Your task to perform on an android device: change your default location settings in chrome Image 0: 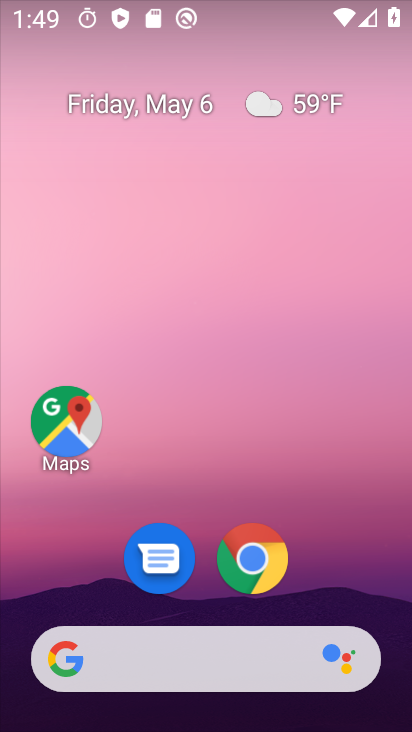
Step 0: click (253, 563)
Your task to perform on an android device: change your default location settings in chrome Image 1: 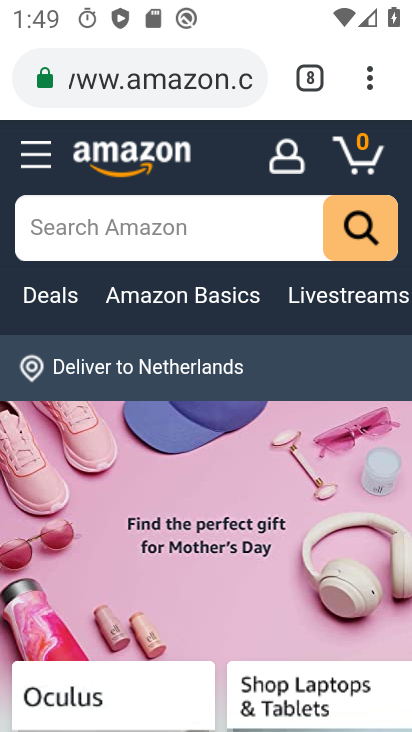
Step 1: drag from (370, 71) to (113, 609)
Your task to perform on an android device: change your default location settings in chrome Image 2: 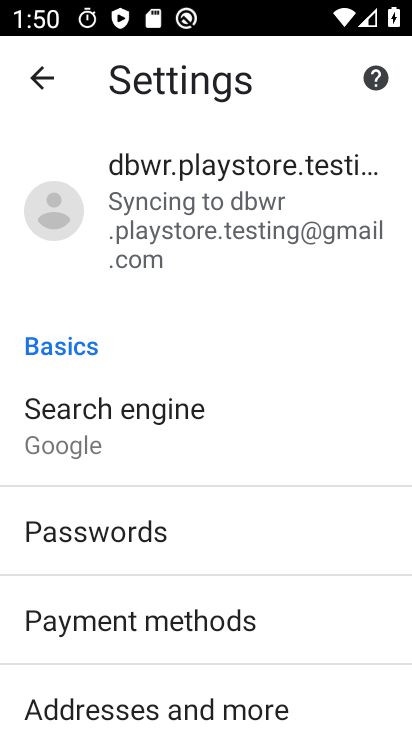
Step 2: click (88, 406)
Your task to perform on an android device: change your default location settings in chrome Image 3: 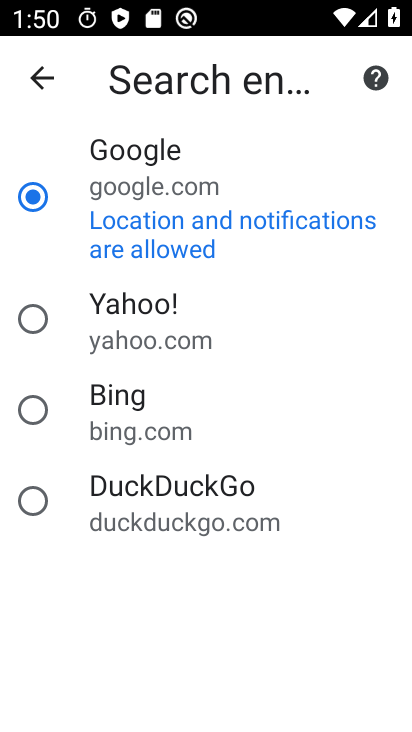
Step 3: click (31, 309)
Your task to perform on an android device: change your default location settings in chrome Image 4: 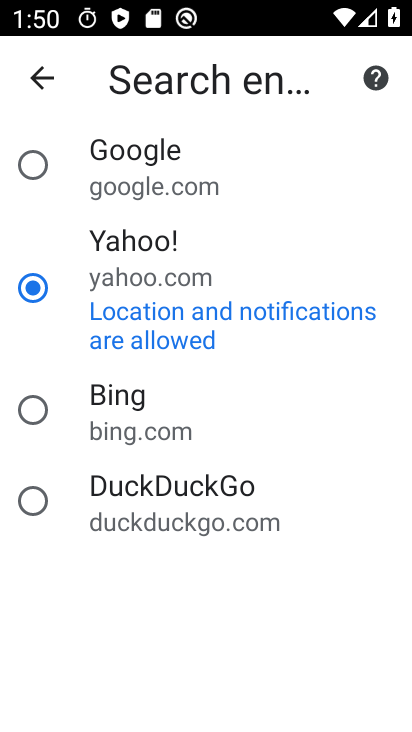
Step 4: task complete